Your task to perform on an android device: Go to notification settings Image 0: 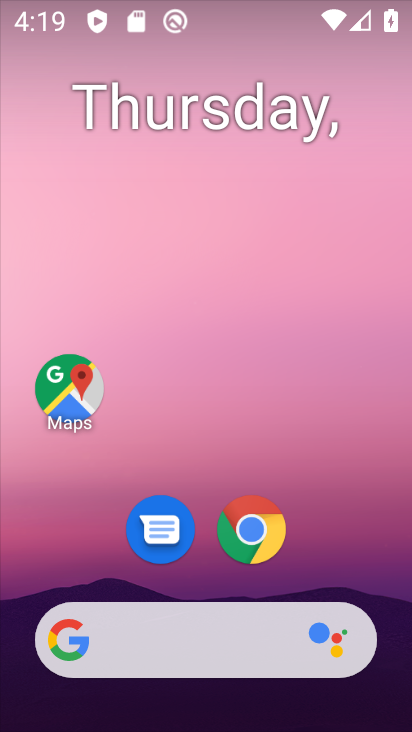
Step 0: press home button
Your task to perform on an android device: Go to notification settings Image 1: 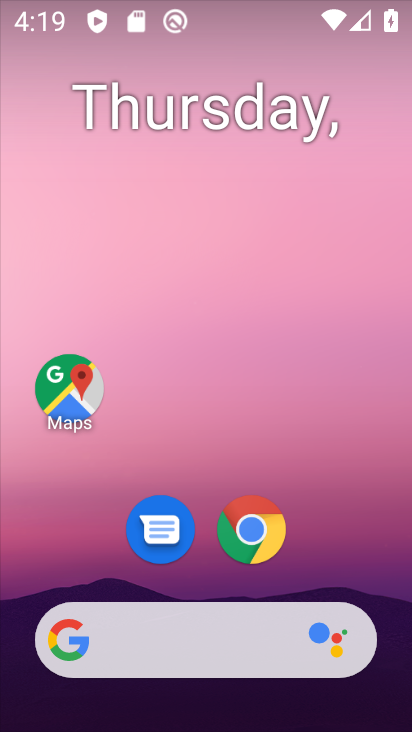
Step 1: drag from (247, 706) to (238, 153)
Your task to perform on an android device: Go to notification settings Image 2: 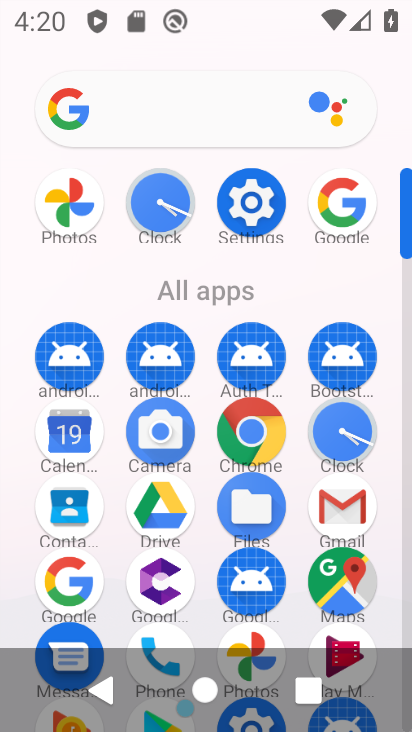
Step 2: click (259, 201)
Your task to perform on an android device: Go to notification settings Image 3: 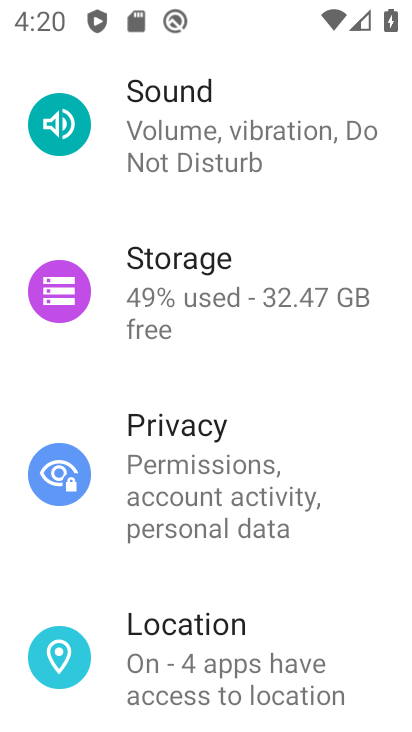
Step 3: drag from (236, 163) to (224, 587)
Your task to perform on an android device: Go to notification settings Image 4: 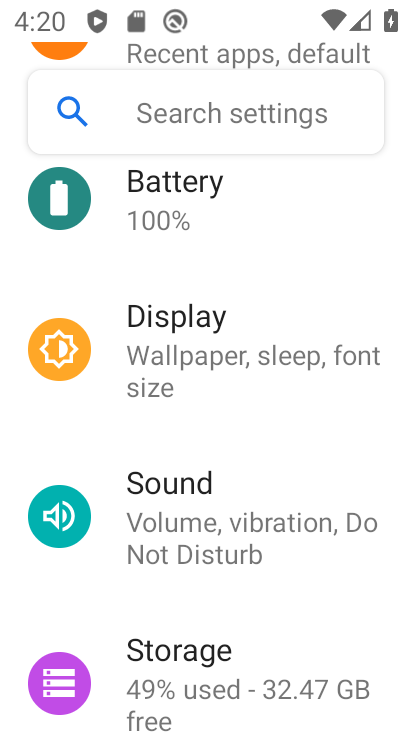
Step 4: drag from (222, 251) to (222, 617)
Your task to perform on an android device: Go to notification settings Image 5: 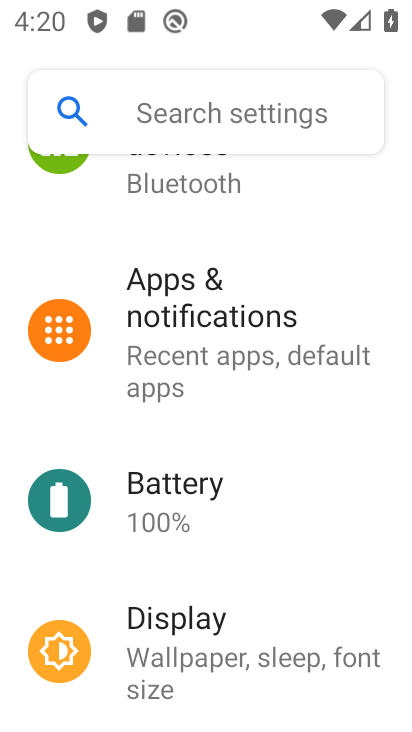
Step 5: click (218, 333)
Your task to perform on an android device: Go to notification settings Image 6: 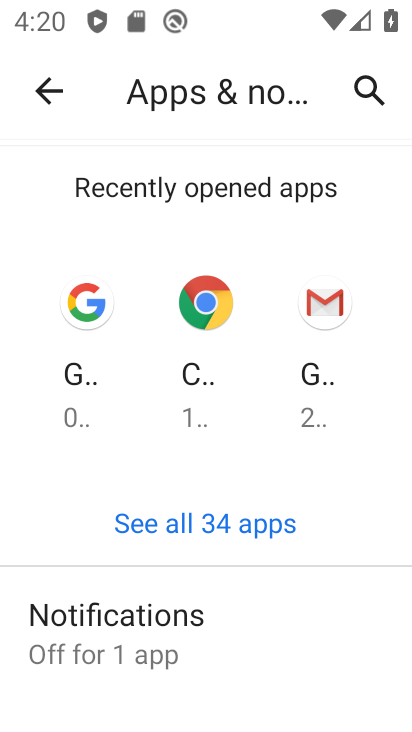
Step 6: task complete